Your task to perform on an android device: Show me the alarms in the clock app Image 0: 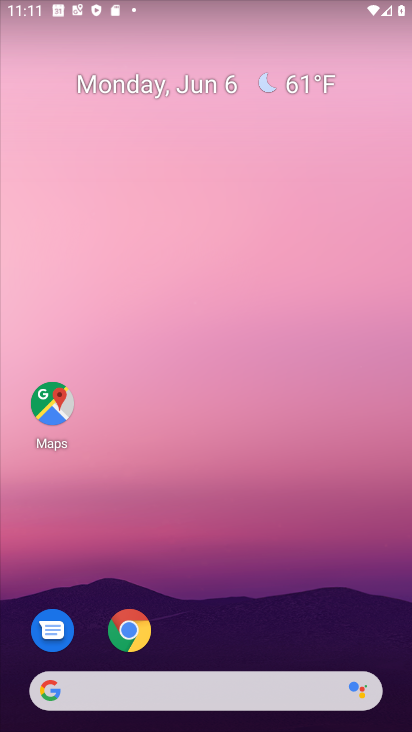
Step 0: drag from (292, 602) to (296, 181)
Your task to perform on an android device: Show me the alarms in the clock app Image 1: 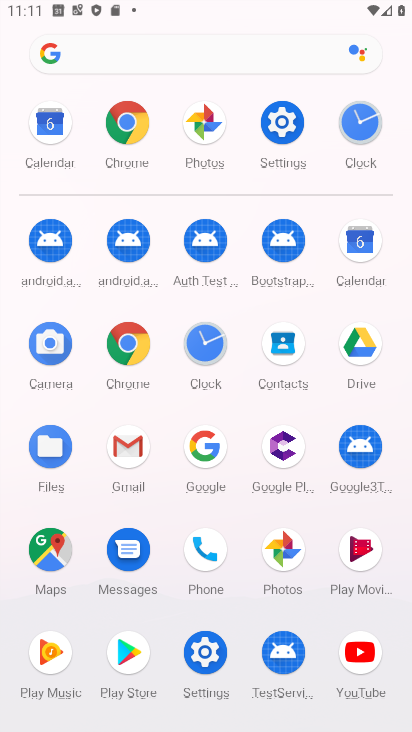
Step 1: click (201, 359)
Your task to perform on an android device: Show me the alarms in the clock app Image 2: 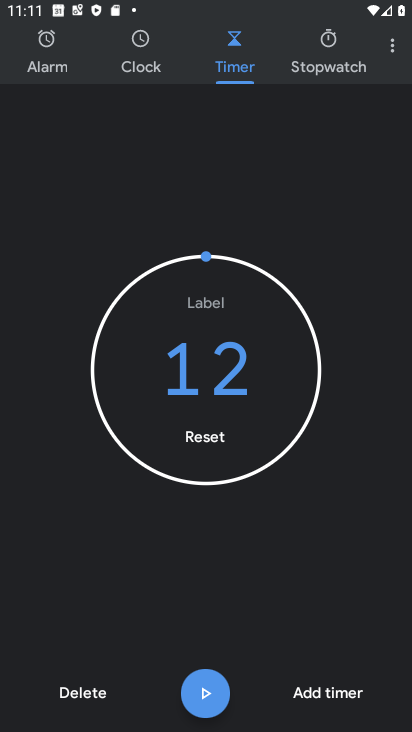
Step 2: click (63, 68)
Your task to perform on an android device: Show me the alarms in the clock app Image 3: 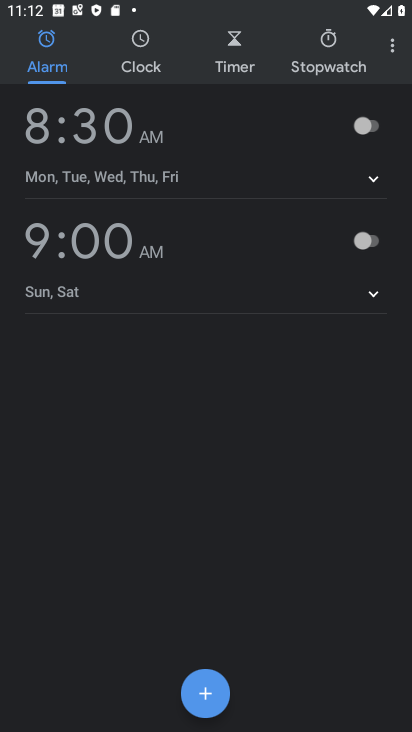
Step 3: task complete